Your task to perform on an android device: turn off sleep mode Image 0: 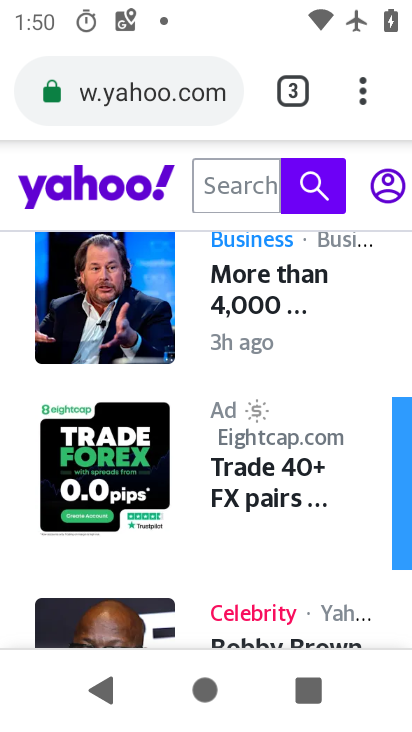
Step 0: press home button
Your task to perform on an android device: turn off sleep mode Image 1: 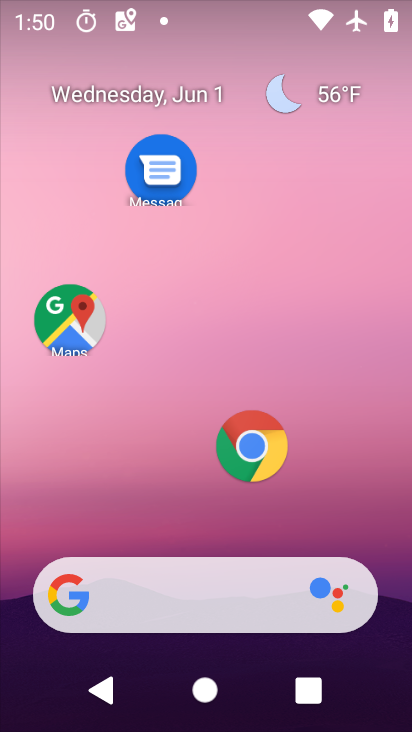
Step 1: drag from (181, 529) to (220, 230)
Your task to perform on an android device: turn off sleep mode Image 2: 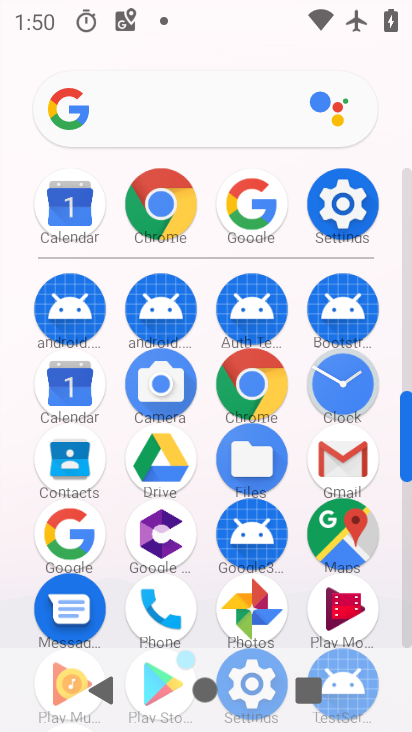
Step 2: drag from (215, 254) to (206, 142)
Your task to perform on an android device: turn off sleep mode Image 3: 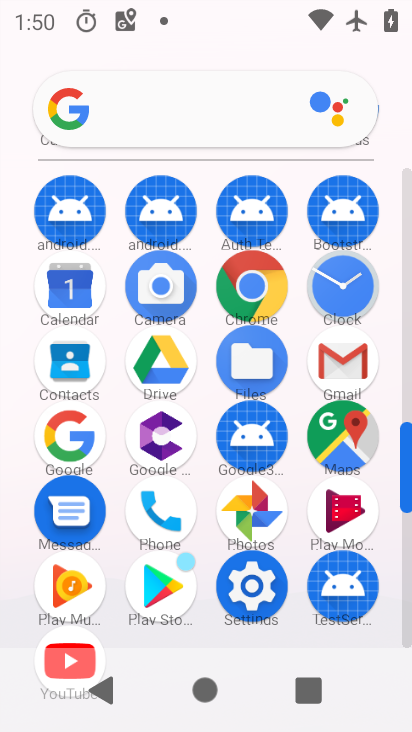
Step 3: click (228, 594)
Your task to perform on an android device: turn off sleep mode Image 4: 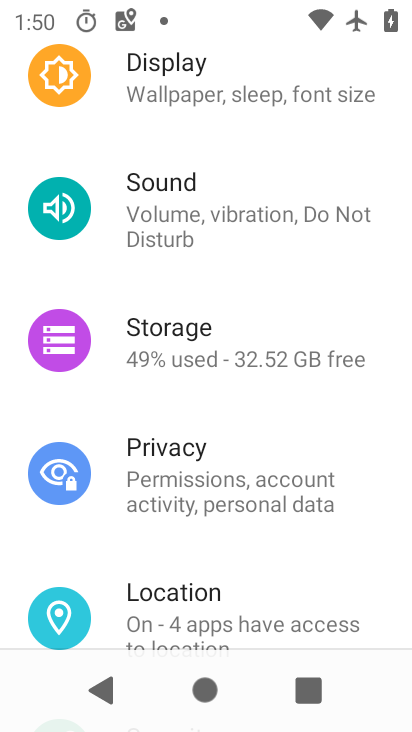
Step 4: task complete